Your task to perform on an android device: Go to display settings Image 0: 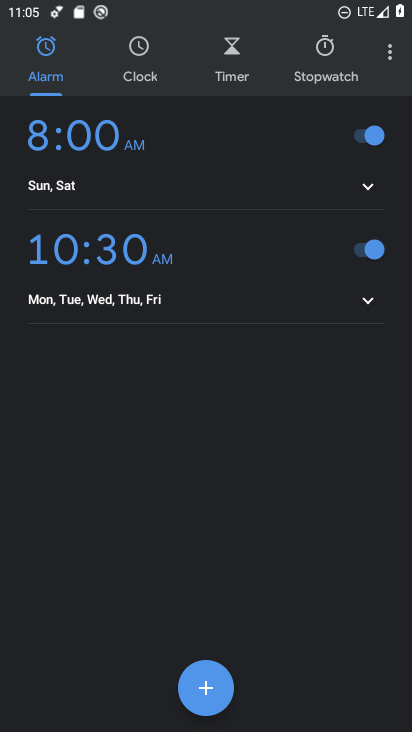
Step 0: press home button
Your task to perform on an android device: Go to display settings Image 1: 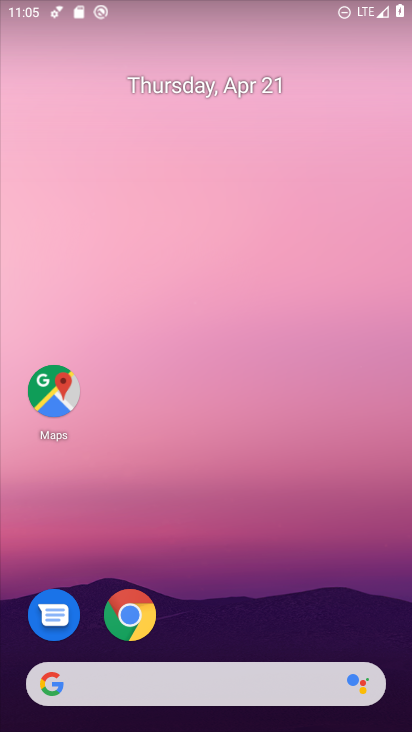
Step 1: drag from (223, 633) to (264, 11)
Your task to perform on an android device: Go to display settings Image 2: 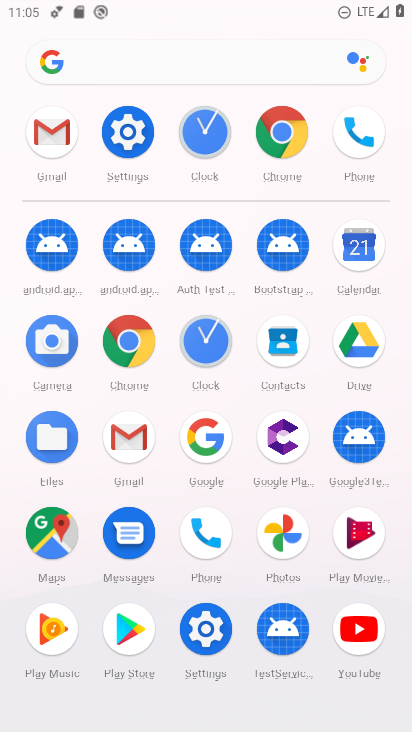
Step 2: click (201, 623)
Your task to perform on an android device: Go to display settings Image 3: 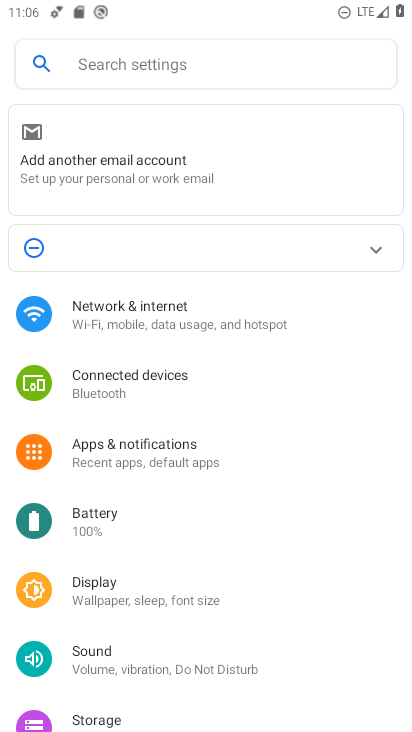
Step 3: click (135, 587)
Your task to perform on an android device: Go to display settings Image 4: 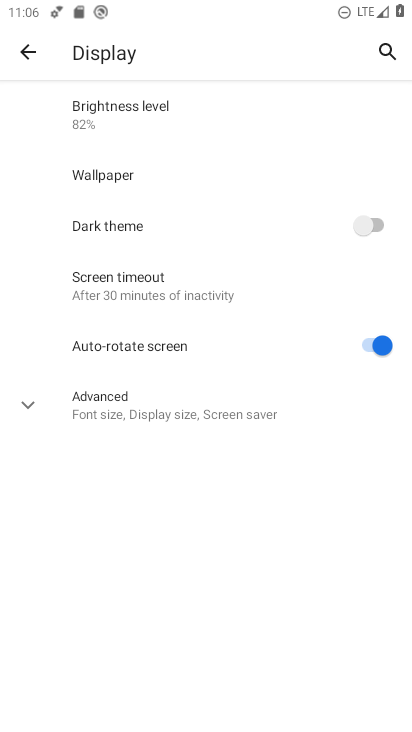
Step 4: click (32, 401)
Your task to perform on an android device: Go to display settings Image 5: 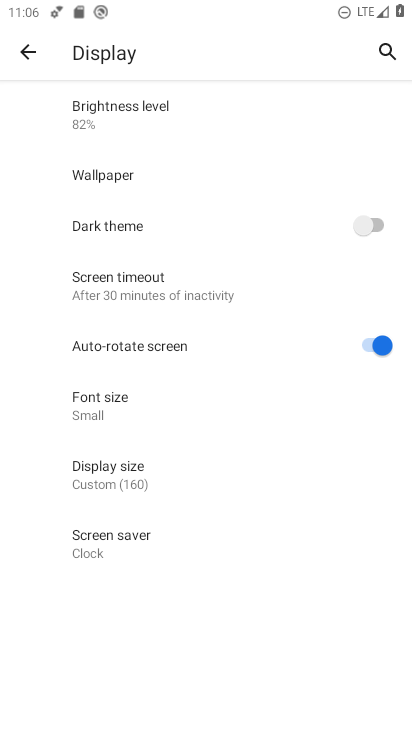
Step 5: task complete